Your task to perform on an android device: delete a single message in the gmail app Image 0: 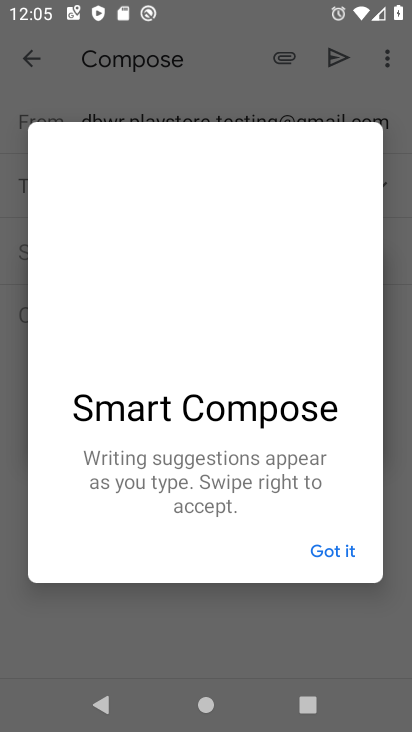
Step 0: press home button
Your task to perform on an android device: delete a single message in the gmail app Image 1: 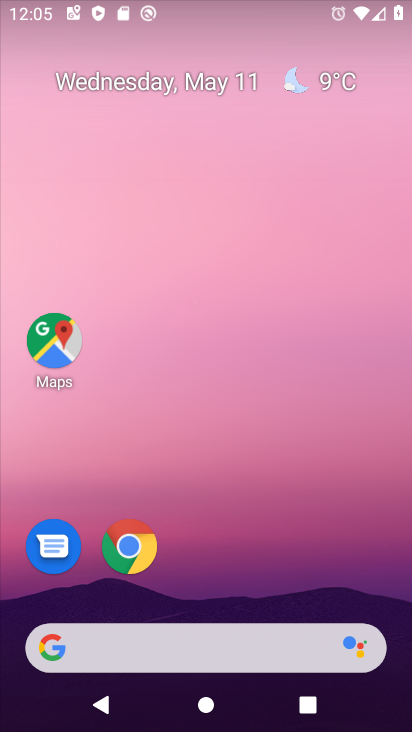
Step 1: drag from (213, 593) to (238, 129)
Your task to perform on an android device: delete a single message in the gmail app Image 2: 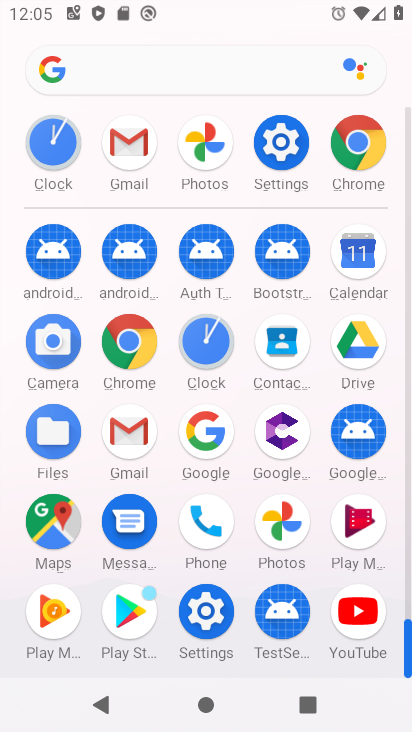
Step 2: click (138, 446)
Your task to perform on an android device: delete a single message in the gmail app Image 3: 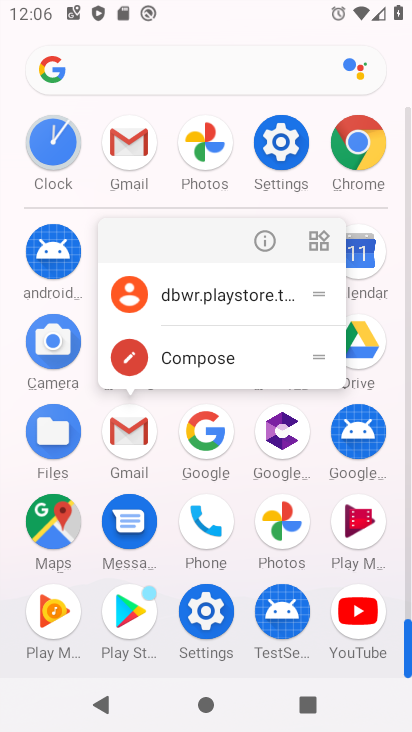
Step 3: click (256, 250)
Your task to perform on an android device: delete a single message in the gmail app Image 4: 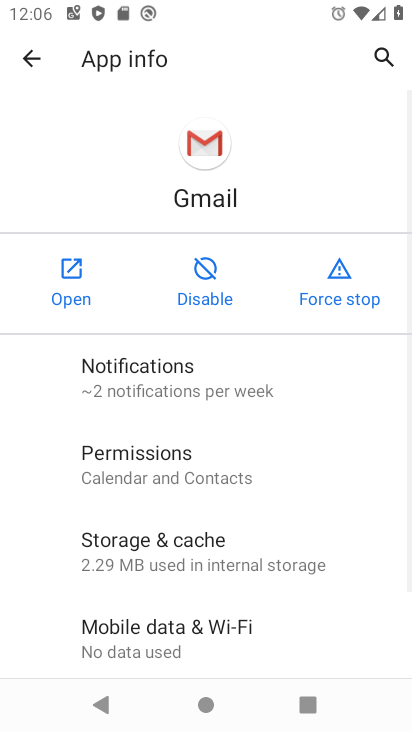
Step 4: click (77, 296)
Your task to perform on an android device: delete a single message in the gmail app Image 5: 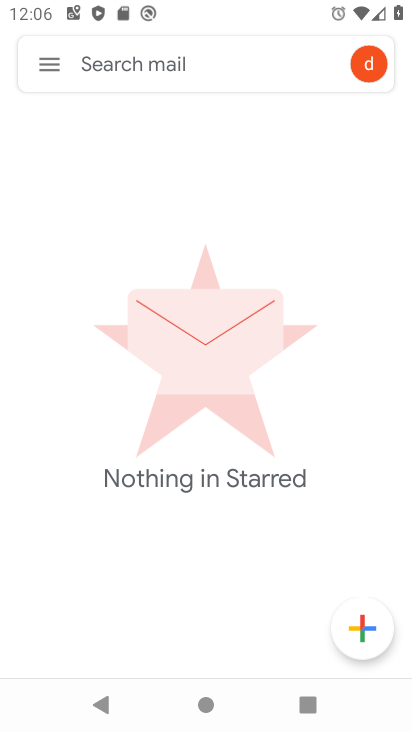
Step 5: click (249, 375)
Your task to perform on an android device: delete a single message in the gmail app Image 6: 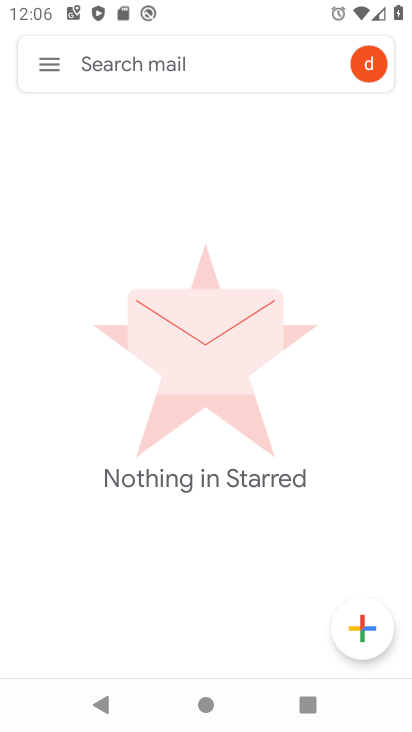
Step 6: task complete